Your task to perform on an android device: find photos in the google photos app Image 0: 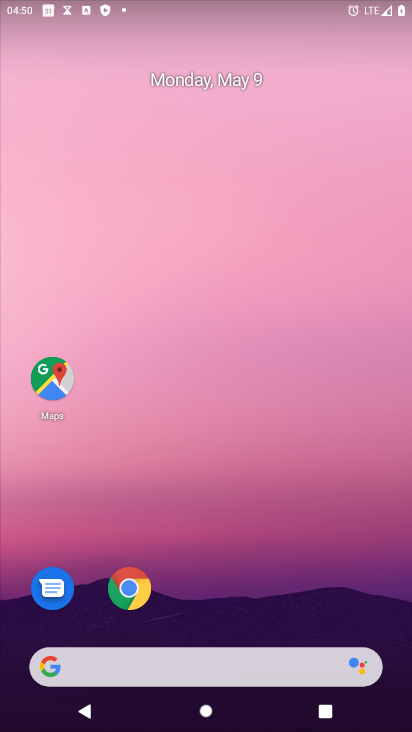
Step 0: drag from (260, 595) to (242, 137)
Your task to perform on an android device: find photos in the google photos app Image 1: 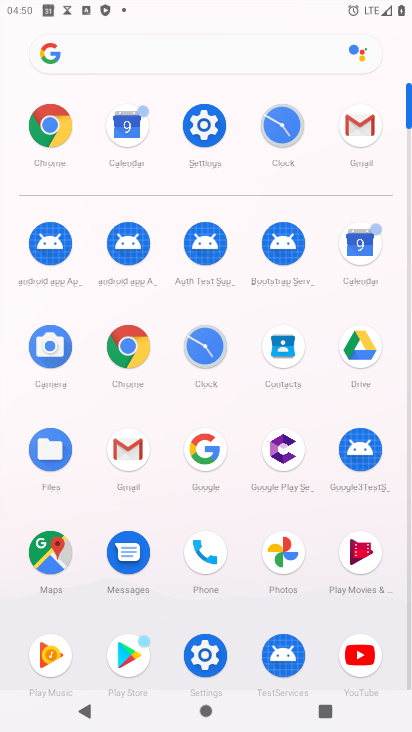
Step 1: click (287, 554)
Your task to perform on an android device: find photos in the google photos app Image 2: 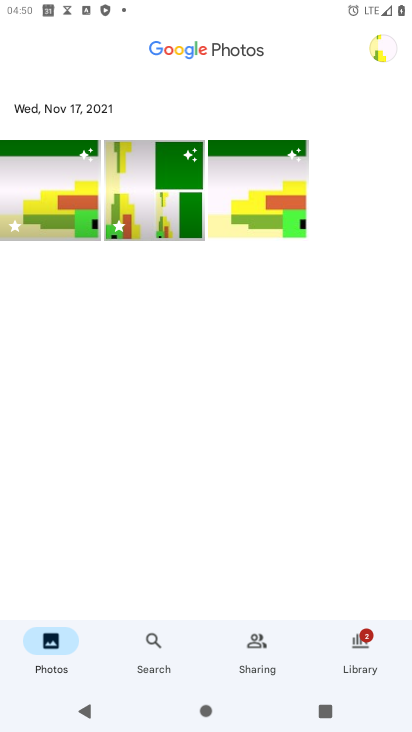
Step 2: click (58, 645)
Your task to perform on an android device: find photos in the google photos app Image 3: 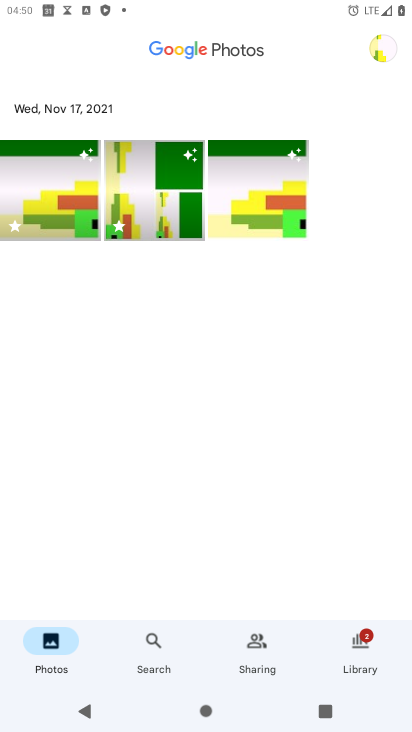
Step 3: task complete